Your task to perform on an android device: toggle pop-ups in chrome Image 0: 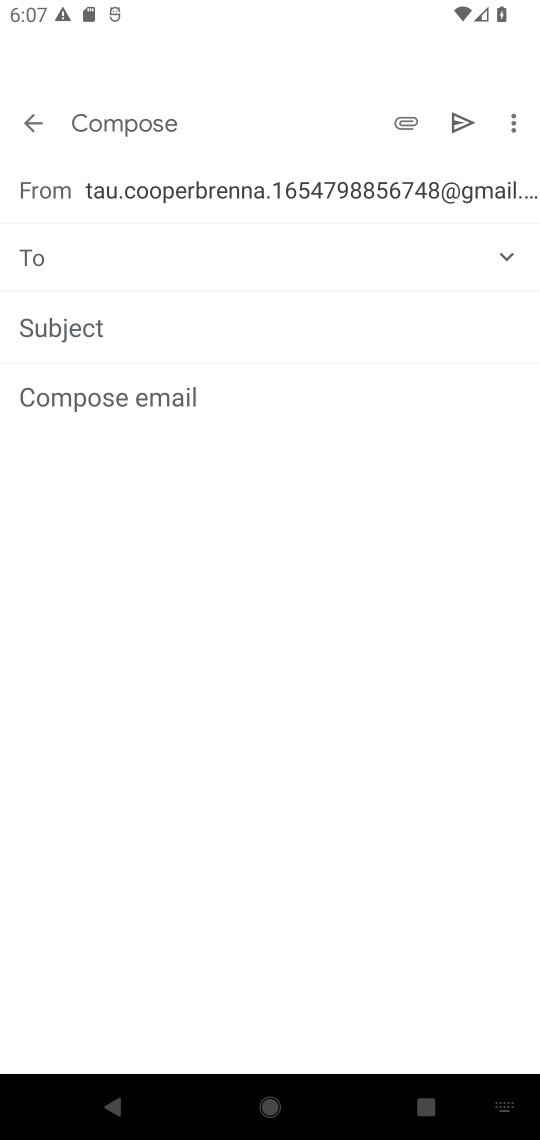
Step 0: press home button
Your task to perform on an android device: toggle pop-ups in chrome Image 1: 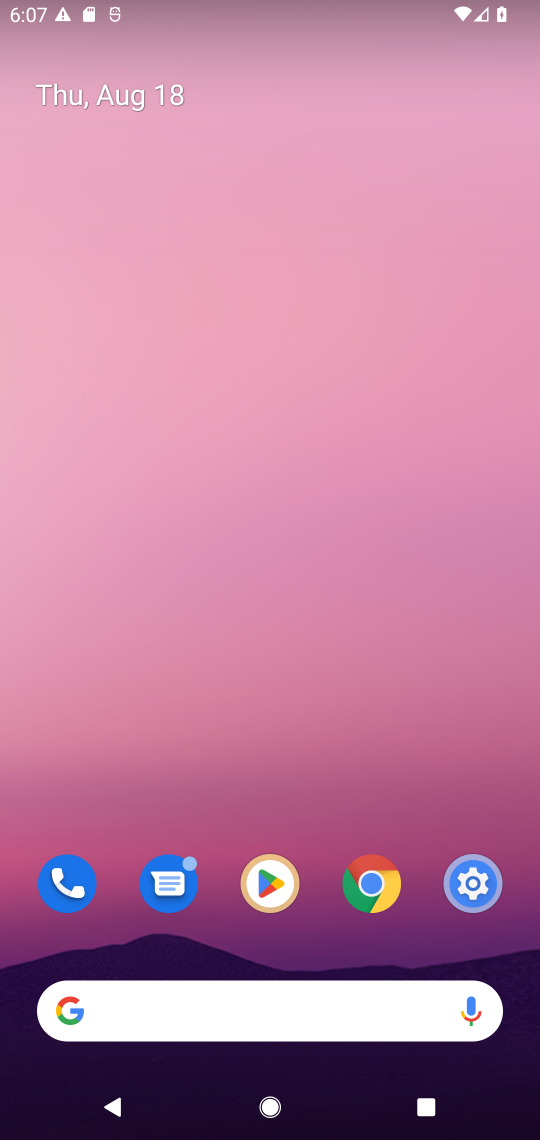
Step 1: click (349, 892)
Your task to perform on an android device: toggle pop-ups in chrome Image 2: 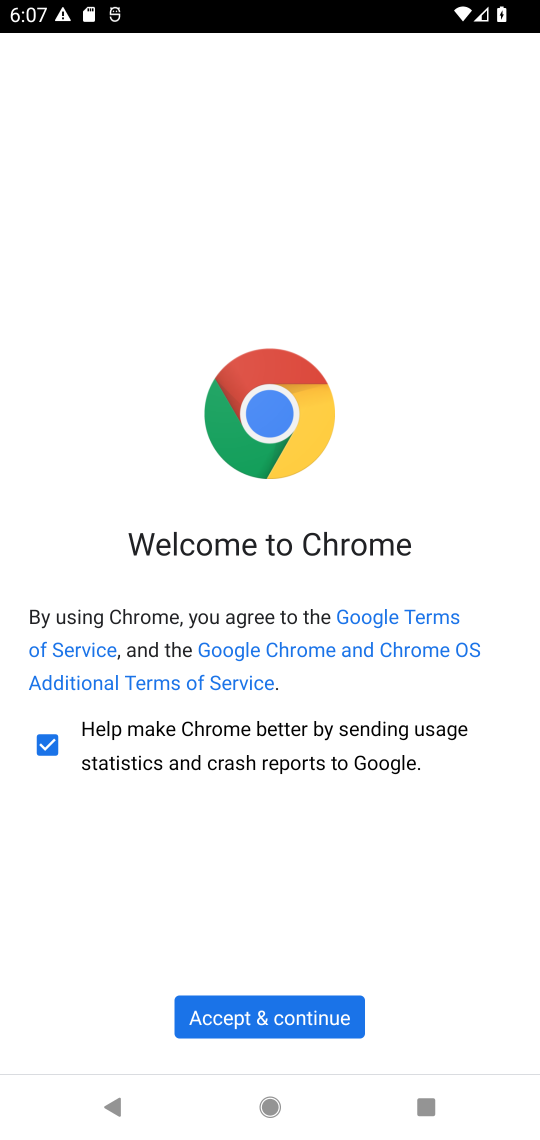
Step 2: click (246, 1015)
Your task to perform on an android device: toggle pop-ups in chrome Image 3: 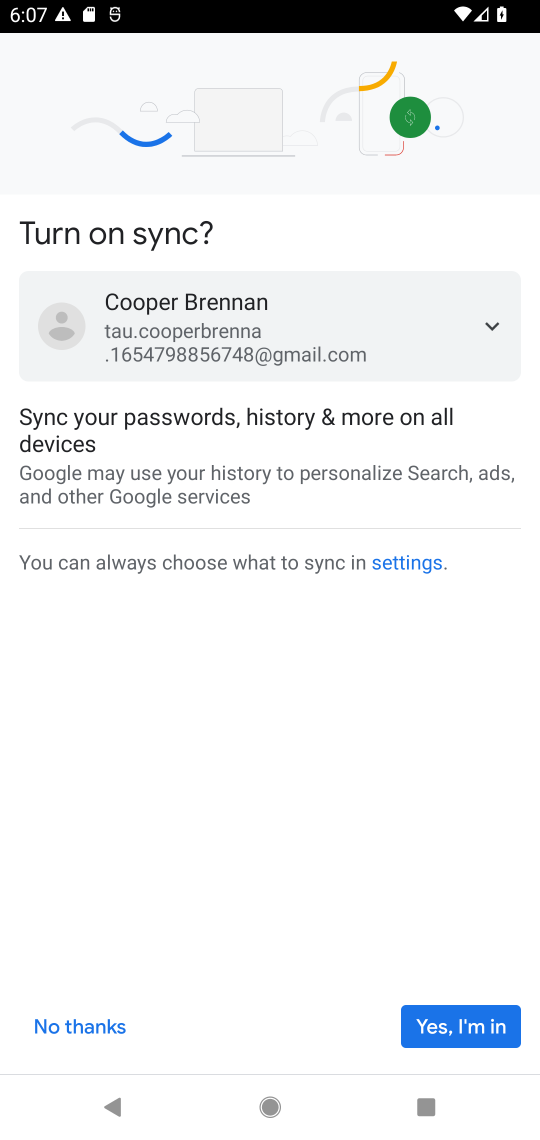
Step 3: click (460, 1021)
Your task to perform on an android device: toggle pop-ups in chrome Image 4: 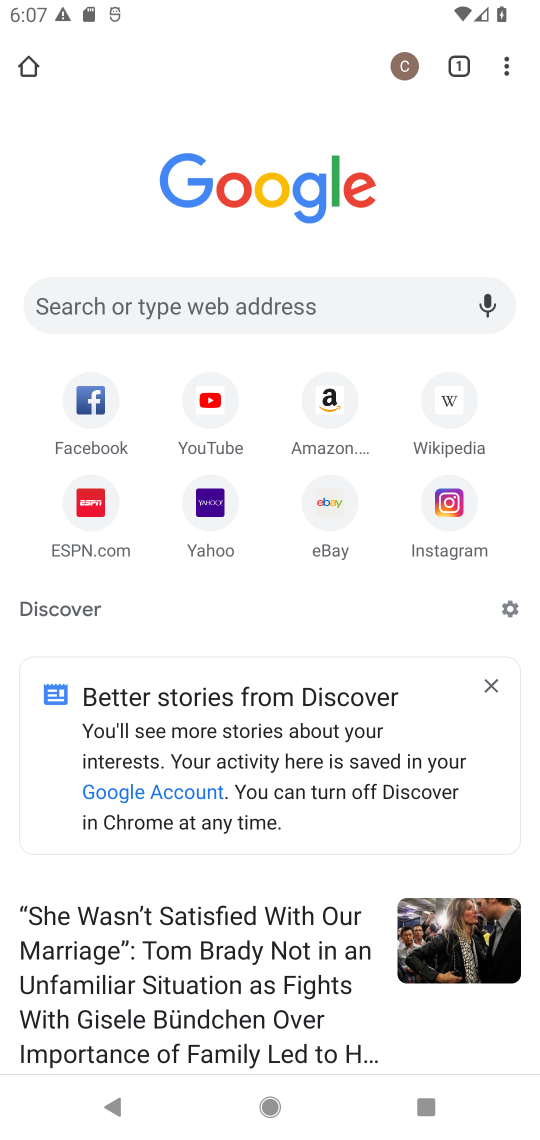
Step 4: click (506, 77)
Your task to perform on an android device: toggle pop-ups in chrome Image 5: 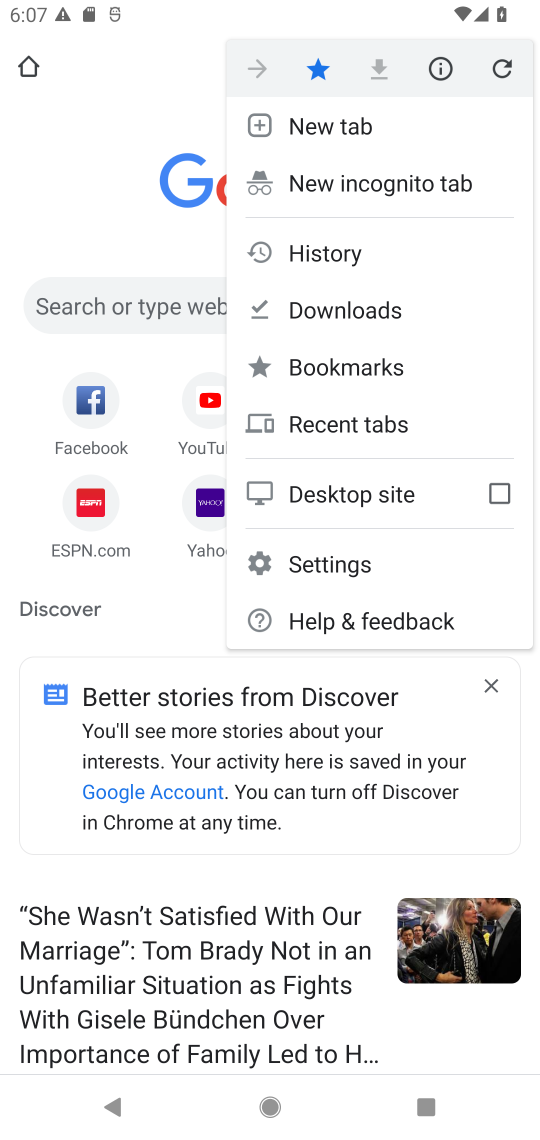
Step 5: click (338, 563)
Your task to perform on an android device: toggle pop-ups in chrome Image 6: 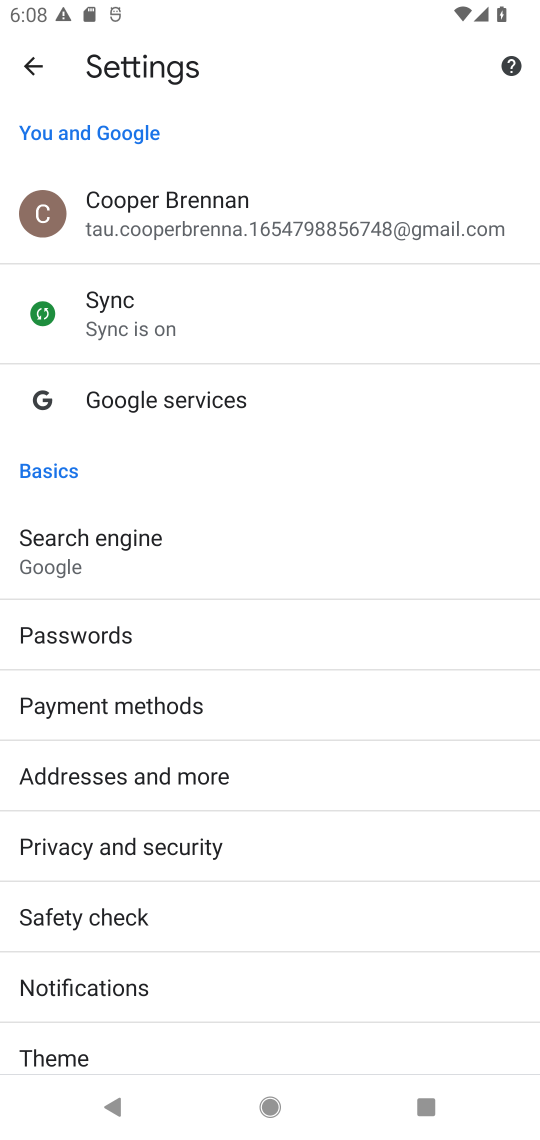
Step 6: drag from (475, 1051) to (408, 672)
Your task to perform on an android device: toggle pop-ups in chrome Image 7: 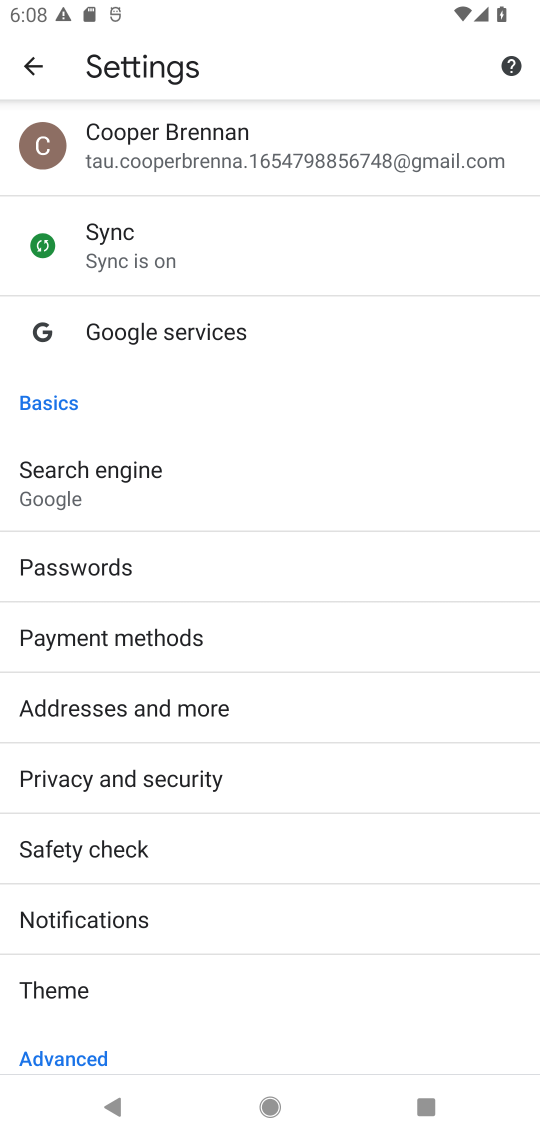
Step 7: drag from (352, 1009) to (319, 445)
Your task to perform on an android device: toggle pop-ups in chrome Image 8: 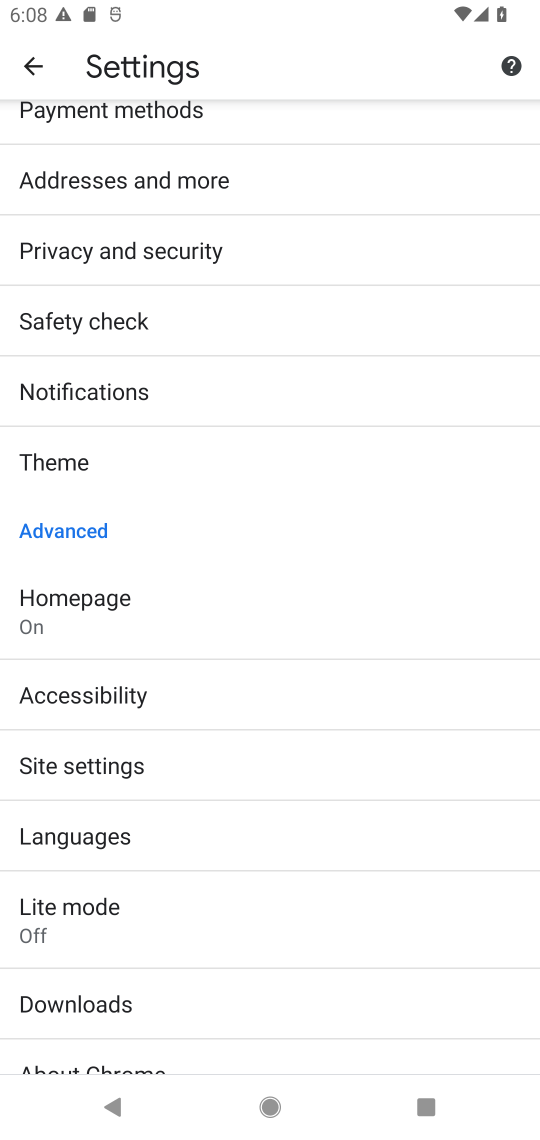
Step 8: click (103, 765)
Your task to perform on an android device: toggle pop-ups in chrome Image 9: 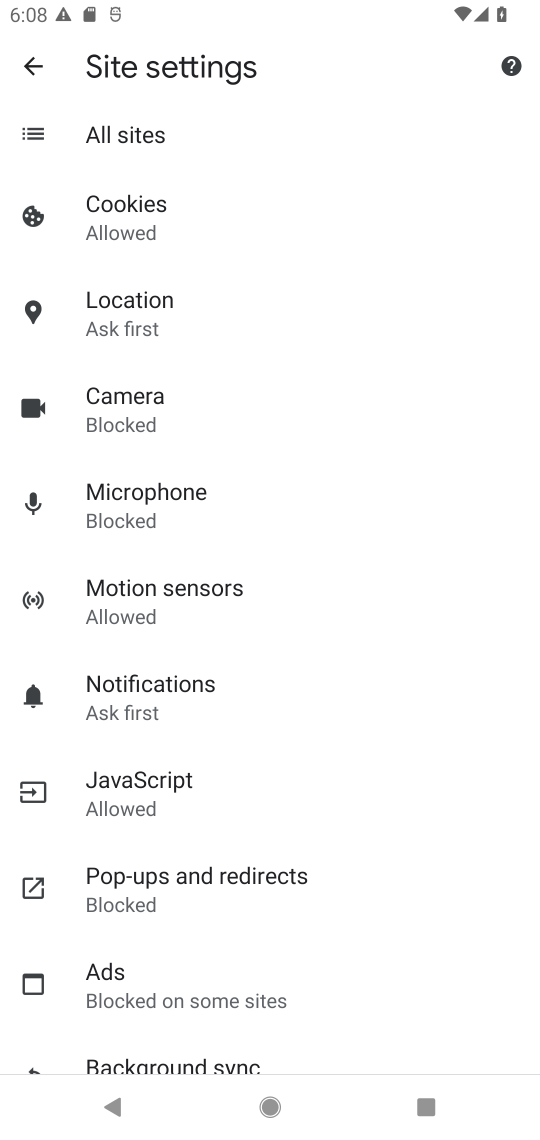
Step 9: drag from (377, 312) to (401, 627)
Your task to perform on an android device: toggle pop-ups in chrome Image 10: 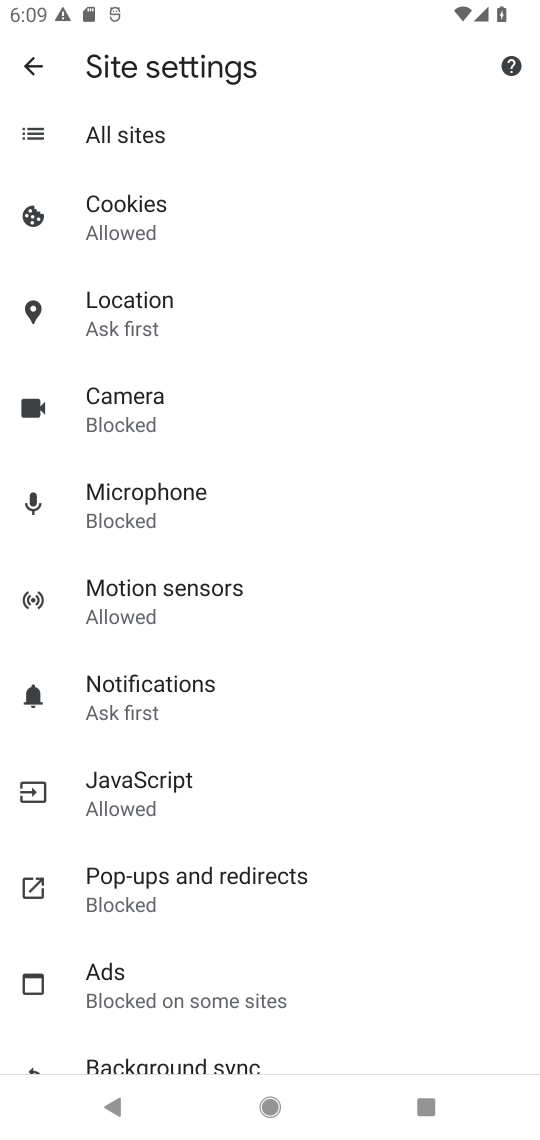
Step 10: click (236, 897)
Your task to perform on an android device: toggle pop-ups in chrome Image 11: 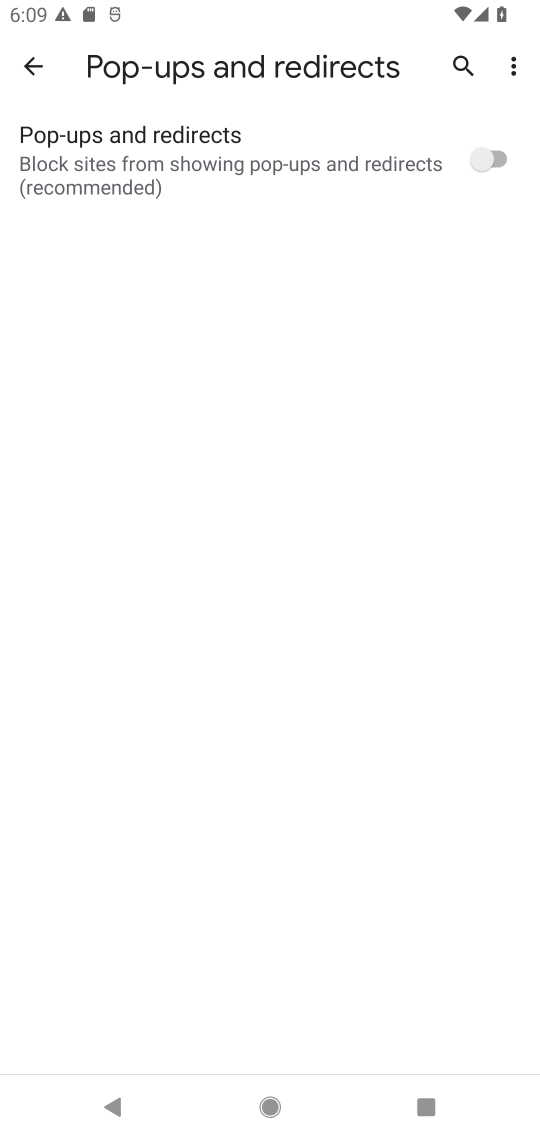
Step 11: click (487, 144)
Your task to perform on an android device: toggle pop-ups in chrome Image 12: 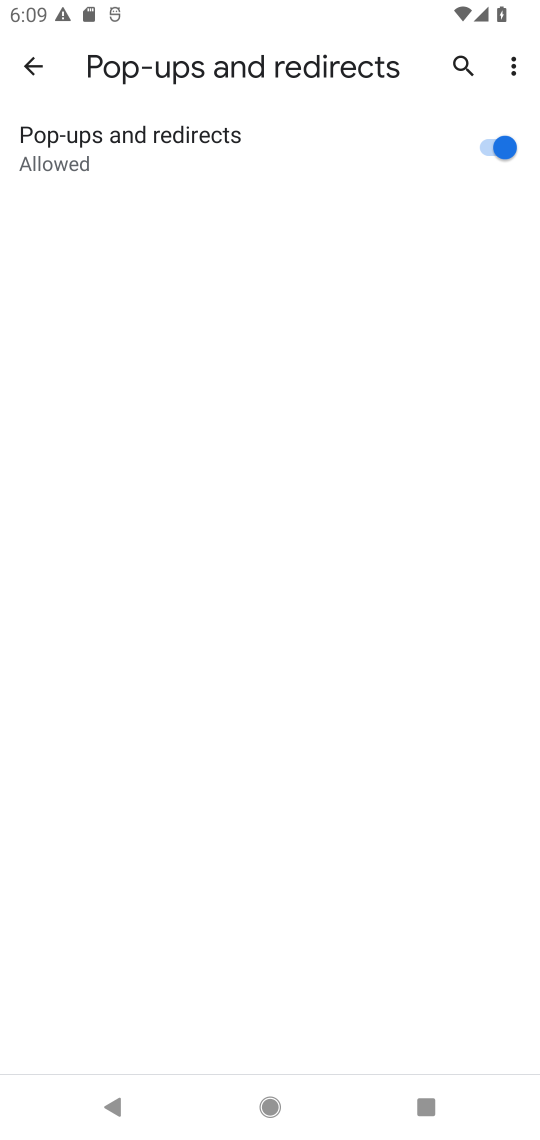
Step 12: task complete